Your task to perform on an android device: Do I have any events today? Image 0: 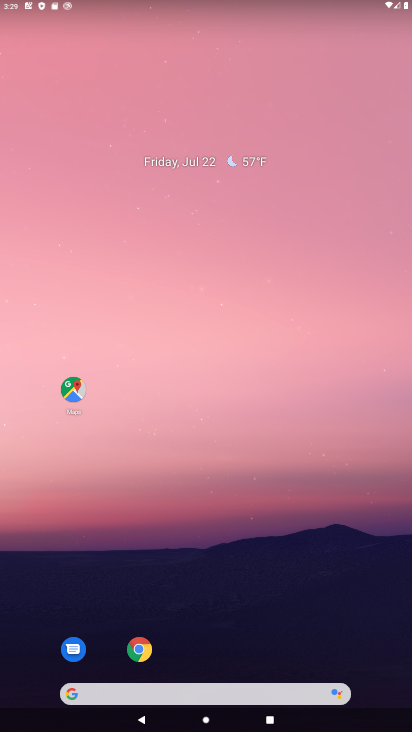
Step 0: drag from (17, 697) to (228, 219)
Your task to perform on an android device: Do I have any events today? Image 1: 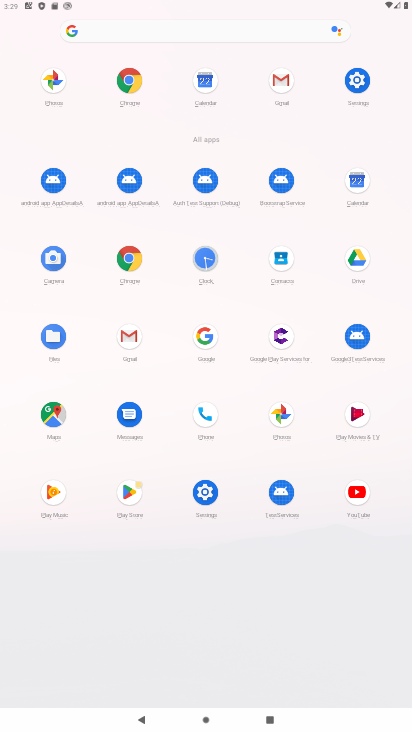
Step 1: click (359, 192)
Your task to perform on an android device: Do I have any events today? Image 2: 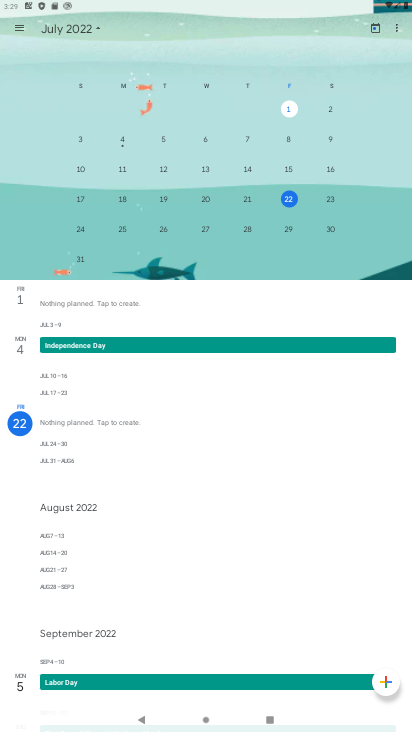
Step 2: task complete